Your task to perform on an android device: stop showing notifications on the lock screen Image 0: 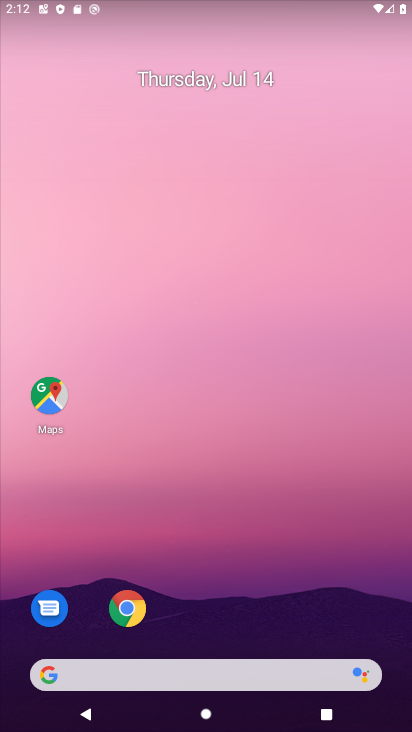
Step 0: drag from (215, 615) to (267, 42)
Your task to perform on an android device: stop showing notifications on the lock screen Image 1: 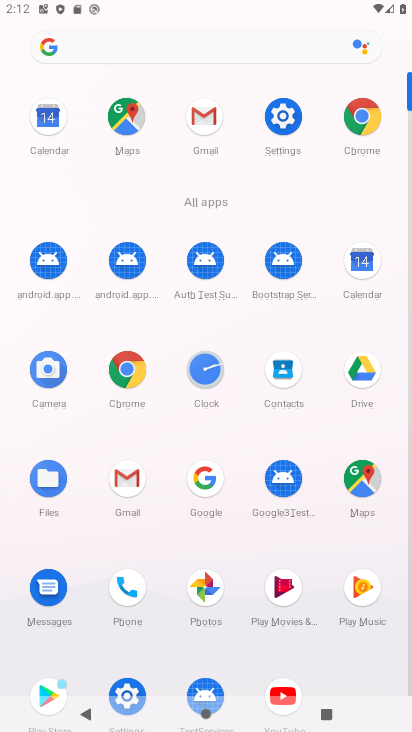
Step 1: click (302, 126)
Your task to perform on an android device: stop showing notifications on the lock screen Image 2: 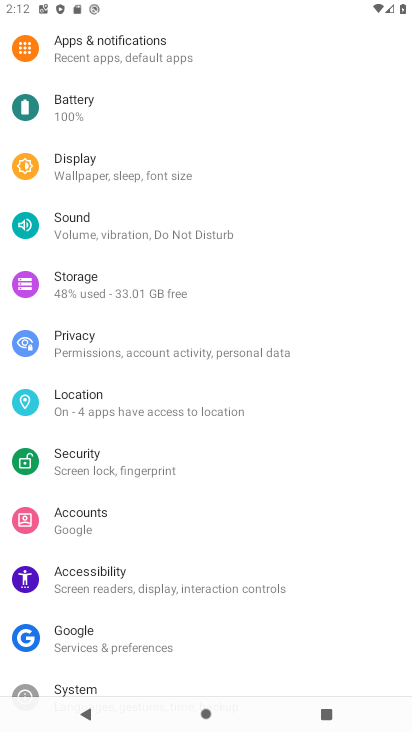
Step 2: click (117, 42)
Your task to perform on an android device: stop showing notifications on the lock screen Image 3: 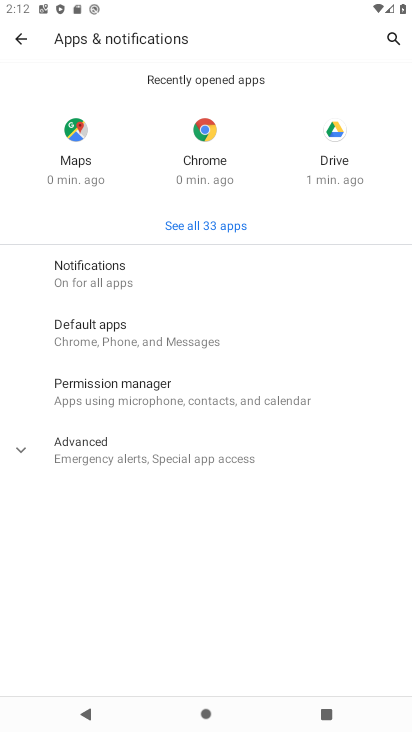
Step 3: click (136, 265)
Your task to perform on an android device: stop showing notifications on the lock screen Image 4: 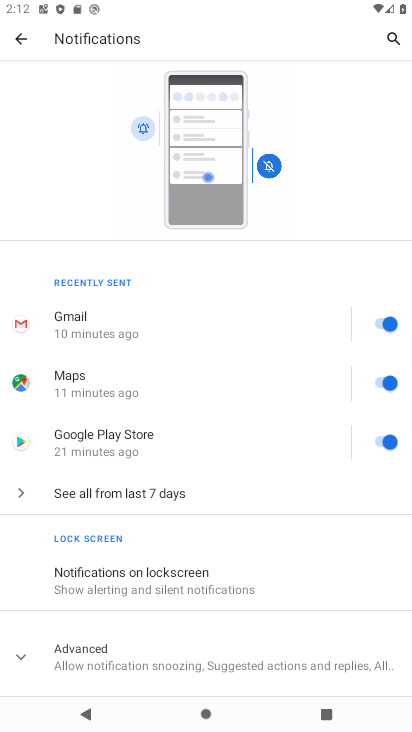
Step 4: click (187, 581)
Your task to perform on an android device: stop showing notifications on the lock screen Image 5: 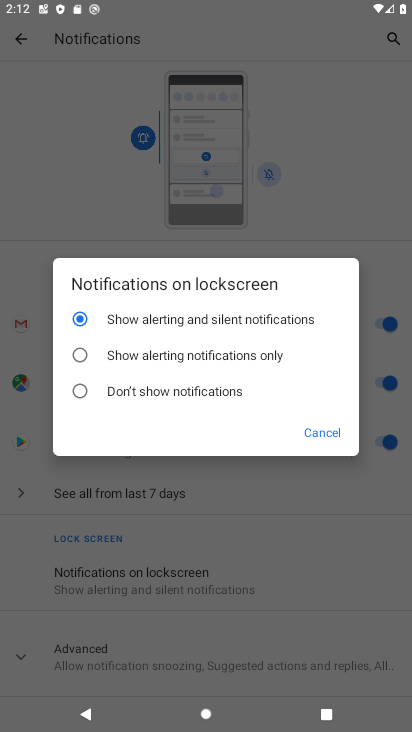
Step 5: click (79, 387)
Your task to perform on an android device: stop showing notifications on the lock screen Image 6: 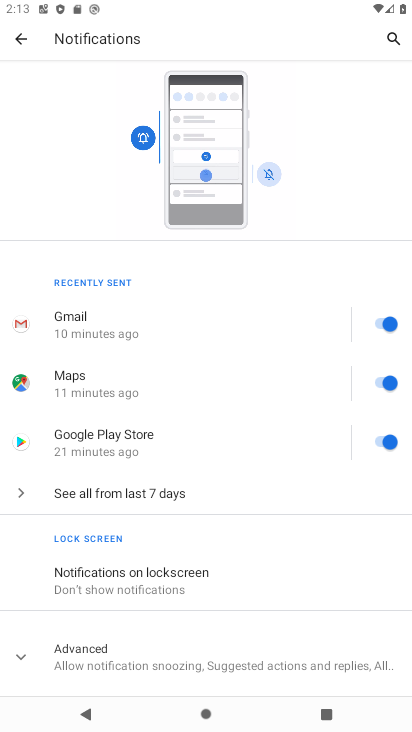
Step 6: click (128, 584)
Your task to perform on an android device: stop showing notifications on the lock screen Image 7: 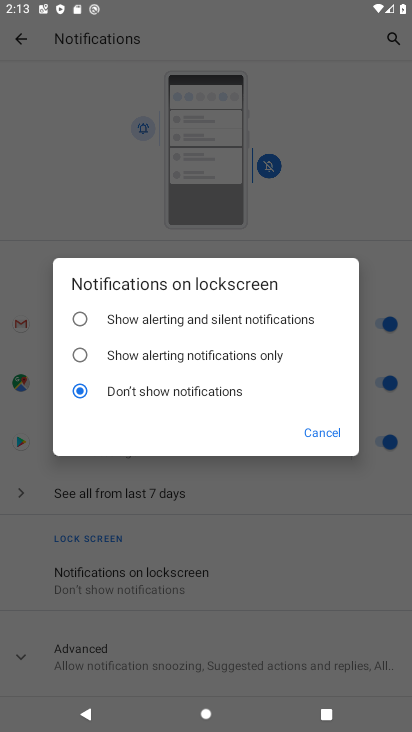
Step 7: task complete